Your task to perform on an android device: search for starred emails in the gmail app Image 0: 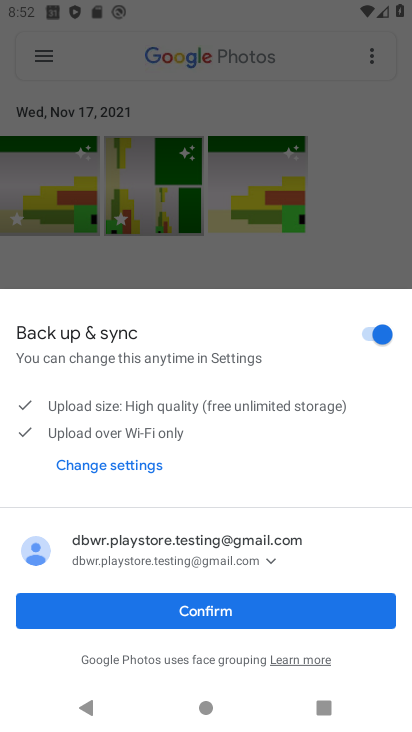
Step 0: press home button
Your task to perform on an android device: search for starred emails in the gmail app Image 1: 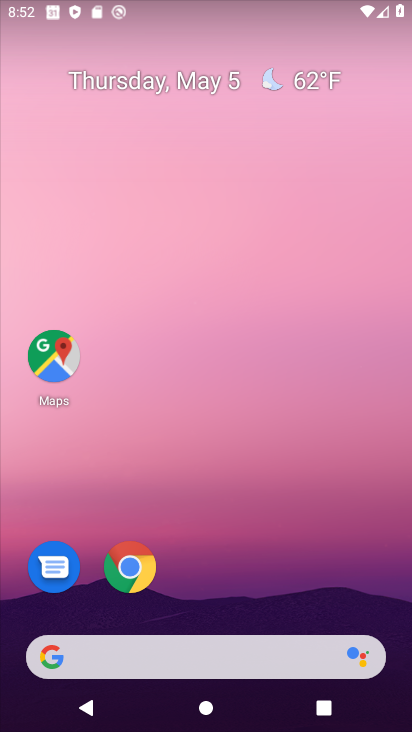
Step 1: drag from (229, 727) to (225, 332)
Your task to perform on an android device: search for starred emails in the gmail app Image 2: 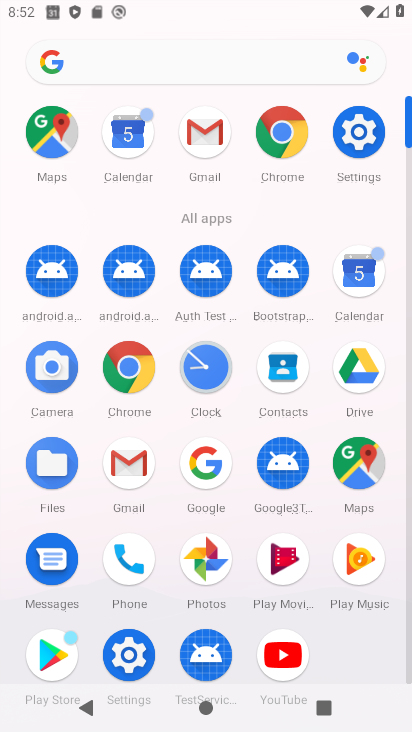
Step 2: click (131, 467)
Your task to perform on an android device: search for starred emails in the gmail app Image 3: 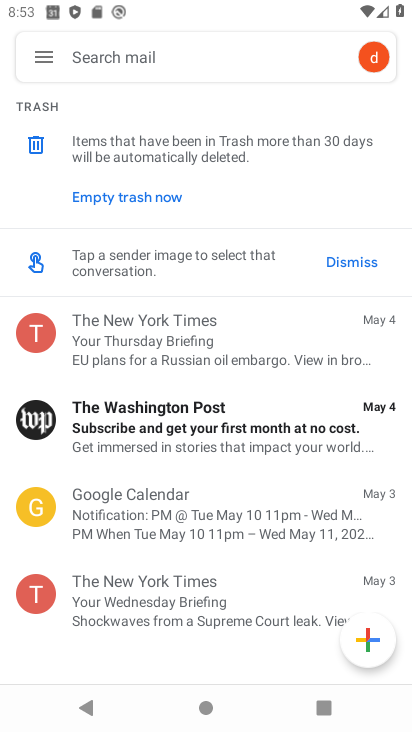
Step 3: click (42, 55)
Your task to perform on an android device: search for starred emails in the gmail app Image 4: 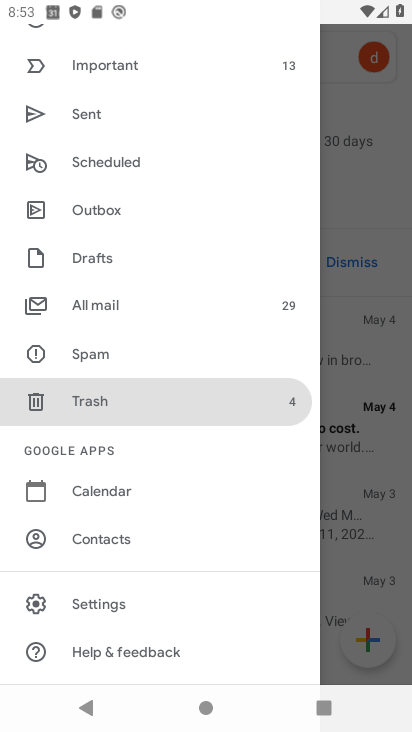
Step 4: drag from (155, 129) to (154, 282)
Your task to perform on an android device: search for starred emails in the gmail app Image 5: 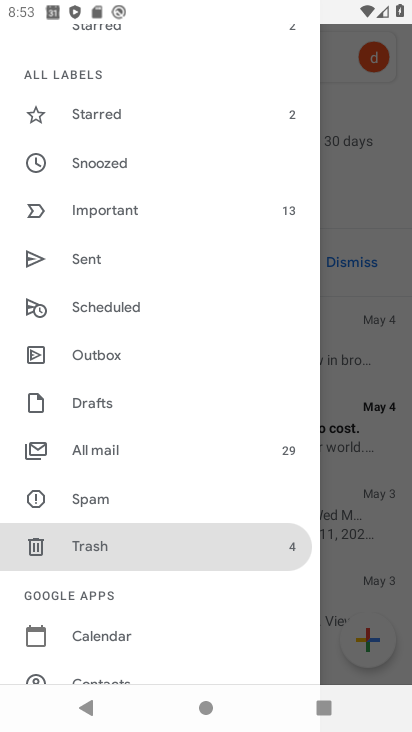
Step 5: click (104, 113)
Your task to perform on an android device: search for starred emails in the gmail app Image 6: 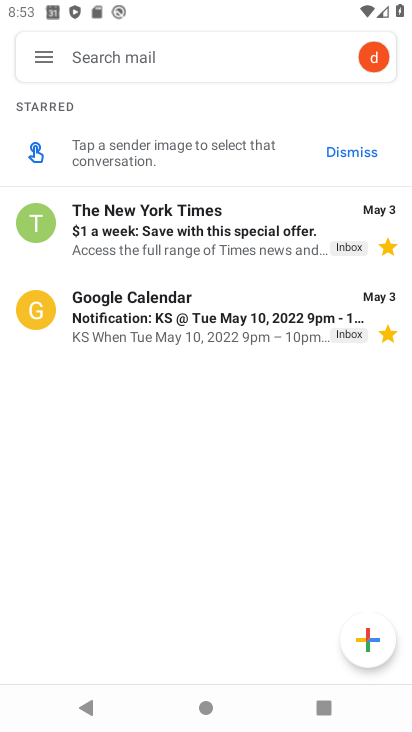
Step 6: task complete